Your task to perform on an android device: Open calendar and show me the fourth week of next month Image 0: 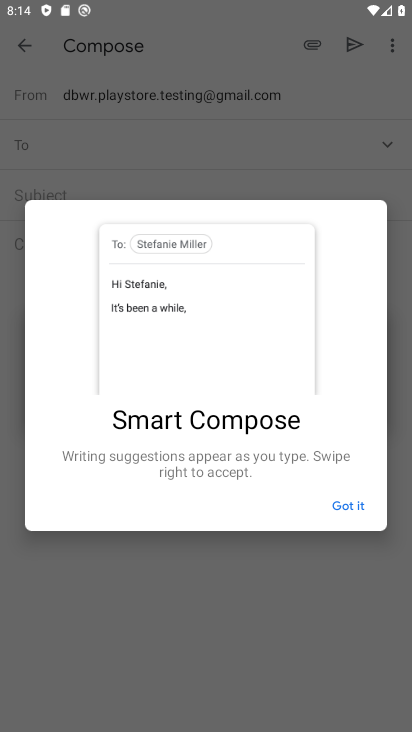
Step 0: press home button
Your task to perform on an android device: Open calendar and show me the fourth week of next month Image 1: 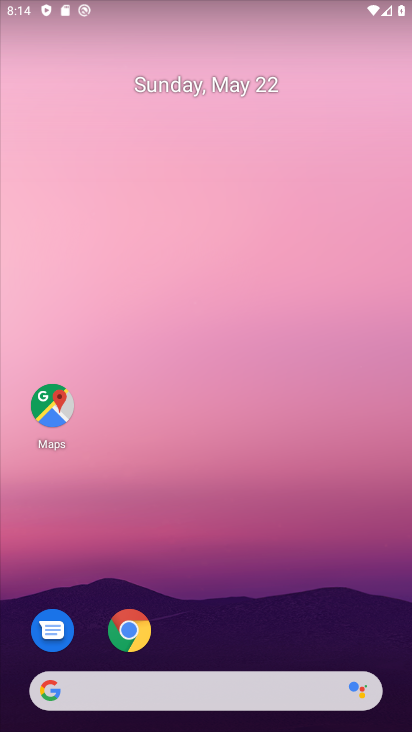
Step 1: drag from (117, 692) to (284, 231)
Your task to perform on an android device: Open calendar and show me the fourth week of next month Image 2: 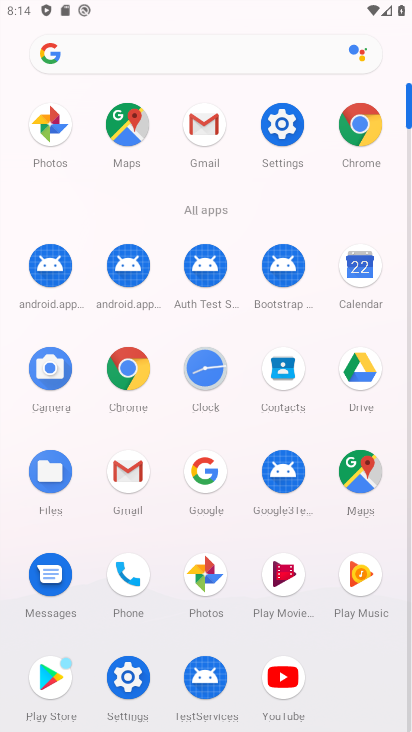
Step 2: click (353, 273)
Your task to perform on an android device: Open calendar and show me the fourth week of next month Image 3: 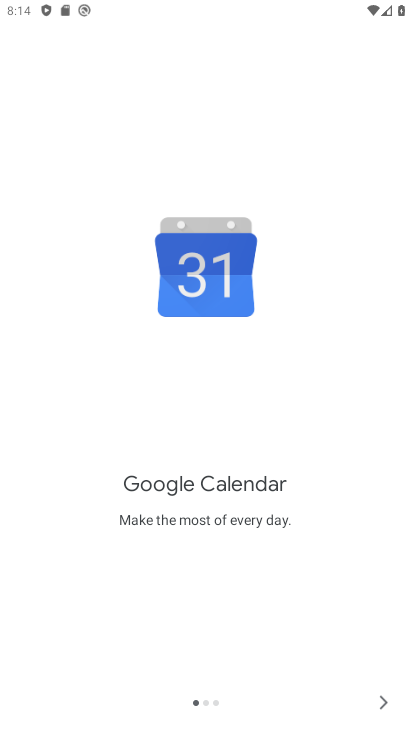
Step 3: click (385, 706)
Your task to perform on an android device: Open calendar and show me the fourth week of next month Image 4: 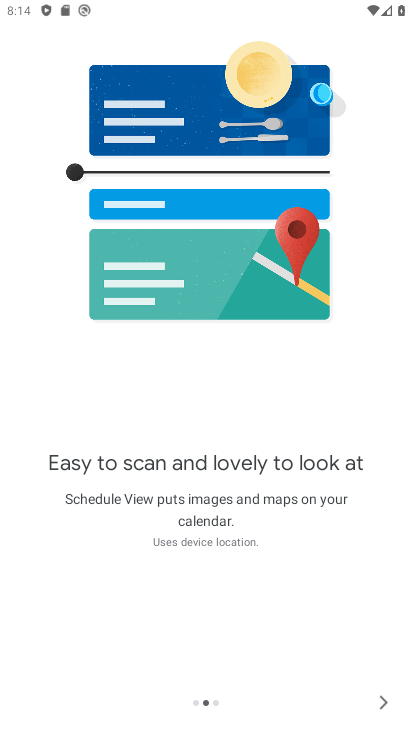
Step 4: click (385, 706)
Your task to perform on an android device: Open calendar and show me the fourth week of next month Image 5: 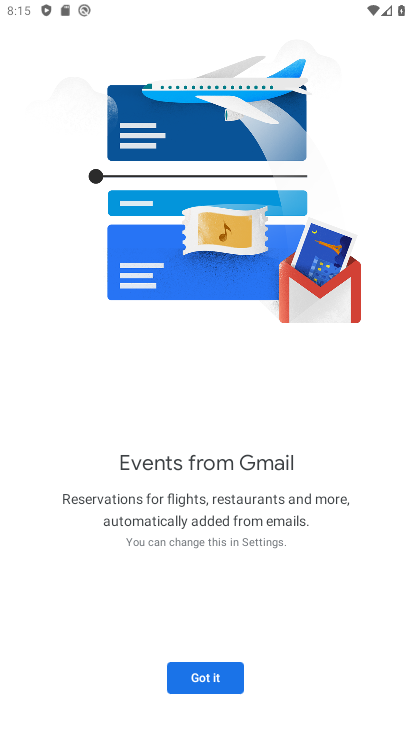
Step 5: click (217, 669)
Your task to perform on an android device: Open calendar and show me the fourth week of next month Image 6: 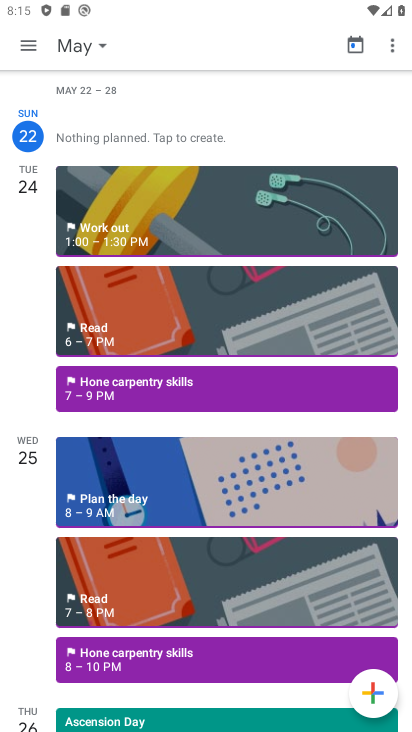
Step 6: click (85, 45)
Your task to perform on an android device: Open calendar and show me the fourth week of next month Image 7: 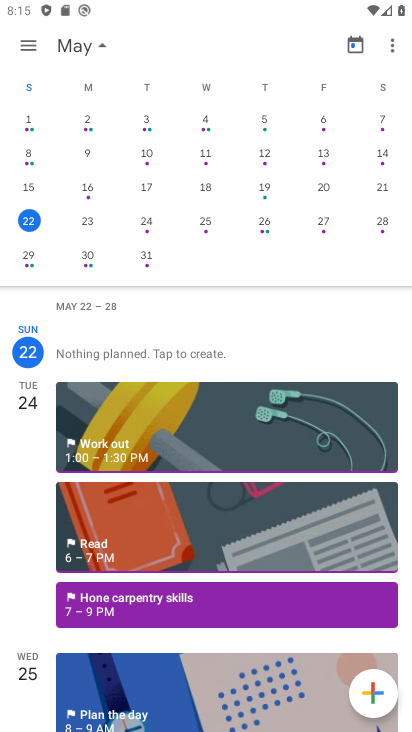
Step 7: drag from (369, 168) to (72, 145)
Your task to perform on an android device: Open calendar and show me the fourth week of next month Image 8: 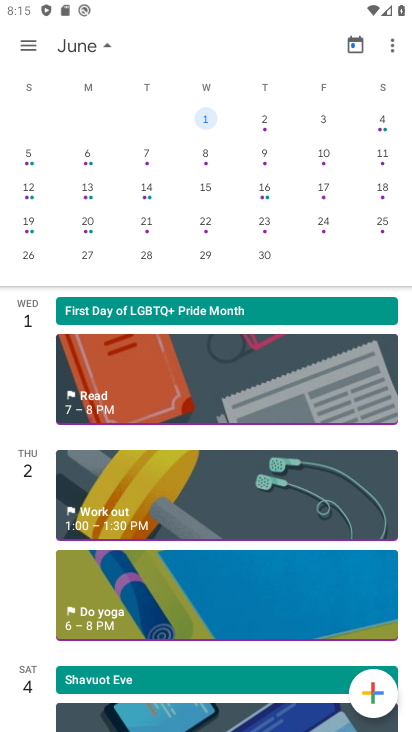
Step 8: click (28, 225)
Your task to perform on an android device: Open calendar and show me the fourth week of next month Image 9: 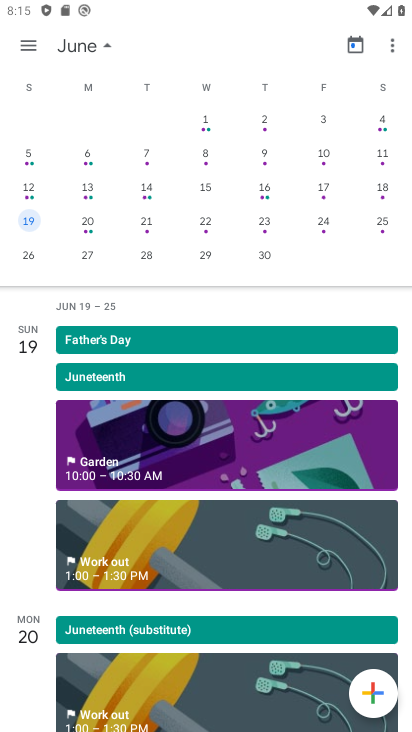
Step 9: click (89, 40)
Your task to perform on an android device: Open calendar and show me the fourth week of next month Image 10: 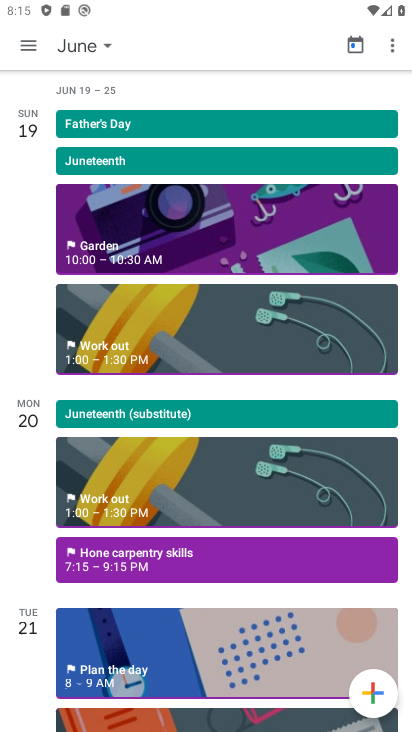
Step 10: click (31, 40)
Your task to perform on an android device: Open calendar and show me the fourth week of next month Image 11: 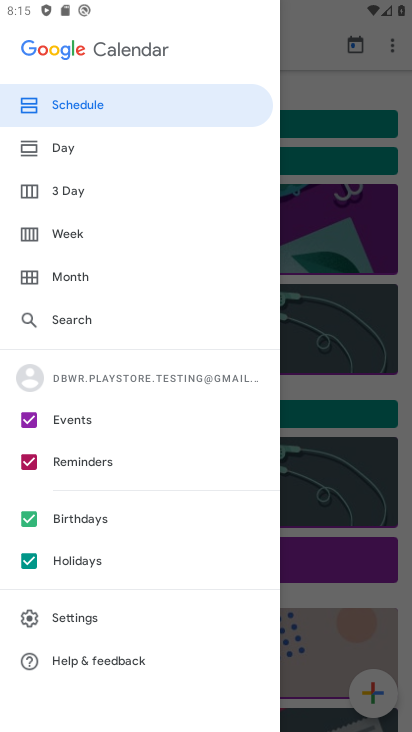
Step 11: click (70, 240)
Your task to perform on an android device: Open calendar and show me the fourth week of next month Image 12: 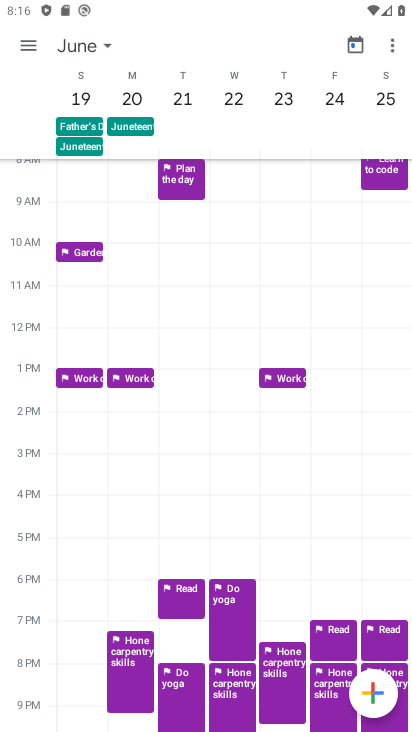
Step 12: task complete